Your task to perform on an android device: Go to sound settings Image 0: 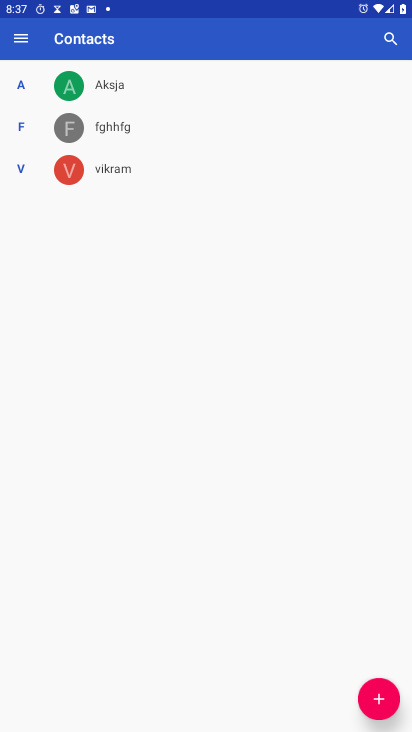
Step 0: press home button
Your task to perform on an android device: Go to sound settings Image 1: 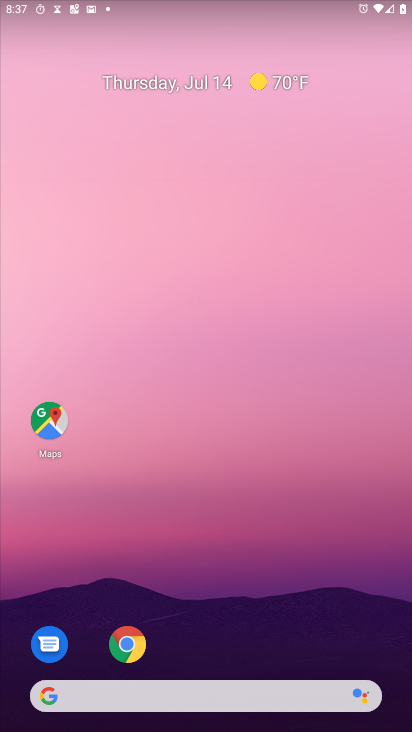
Step 1: drag from (171, 702) to (314, 0)
Your task to perform on an android device: Go to sound settings Image 2: 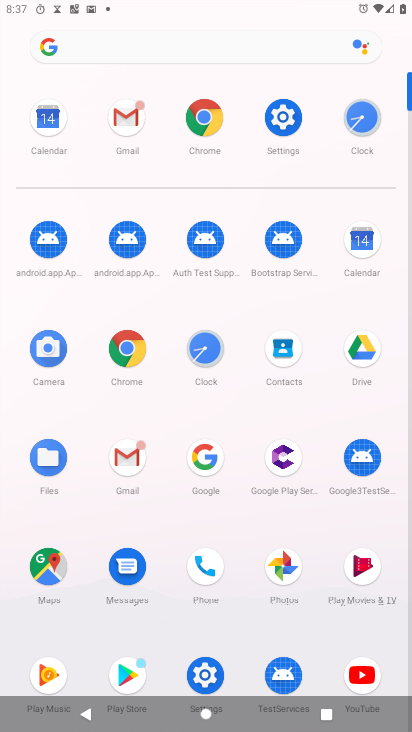
Step 2: click (286, 112)
Your task to perform on an android device: Go to sound settings Image 3: 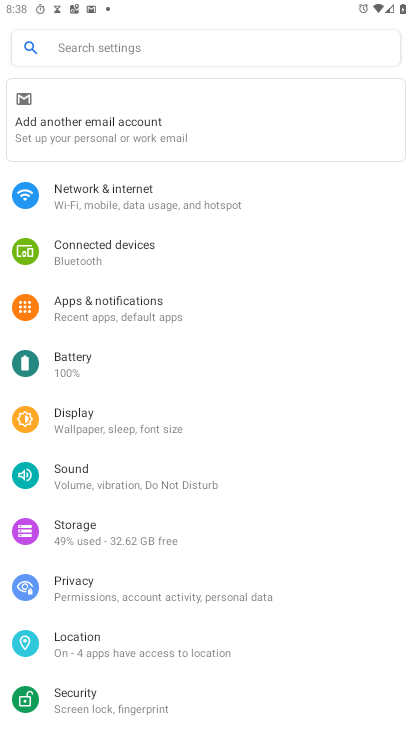
Step 3: click (67, 482)
Your task to perform on an android device: Go to sound settings Image 4: 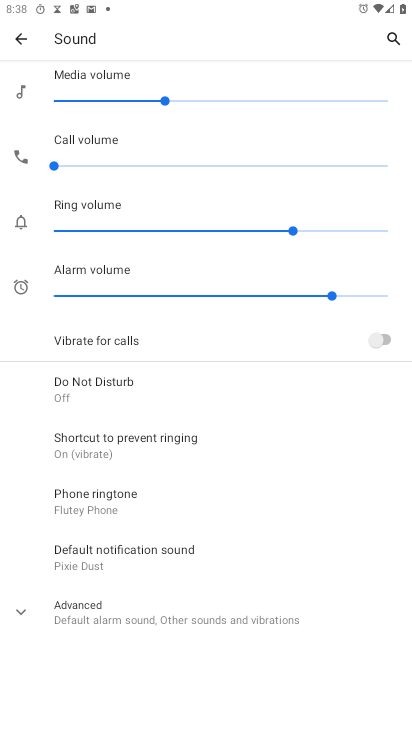
Step 4: task complete